Your task to perform on an android device: turn off wifi Image 0: 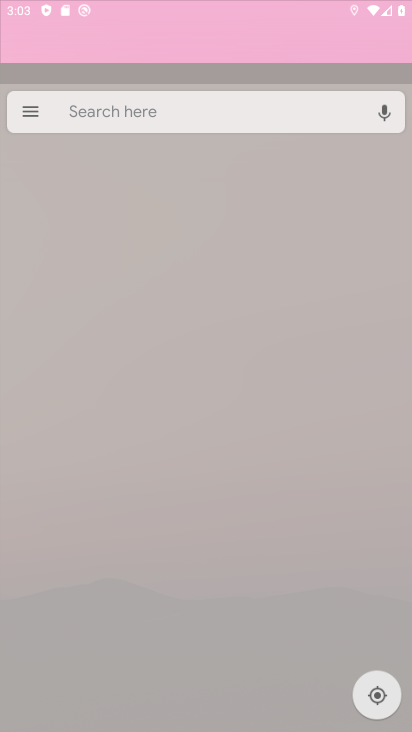
Step 0: drag from (263, 366) to (268, 297)
Your task to perform on an android device: turn off wifi Image 1: 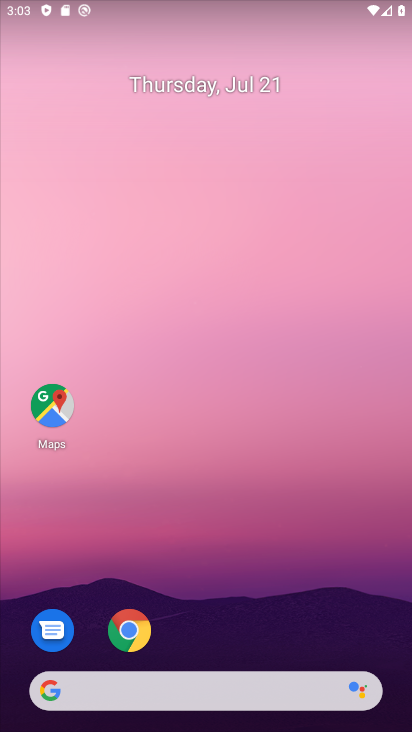
Step 1: drag from (255, 589) to (182, 136)
Your task to perform on an android device: turn off wifi Image 2: 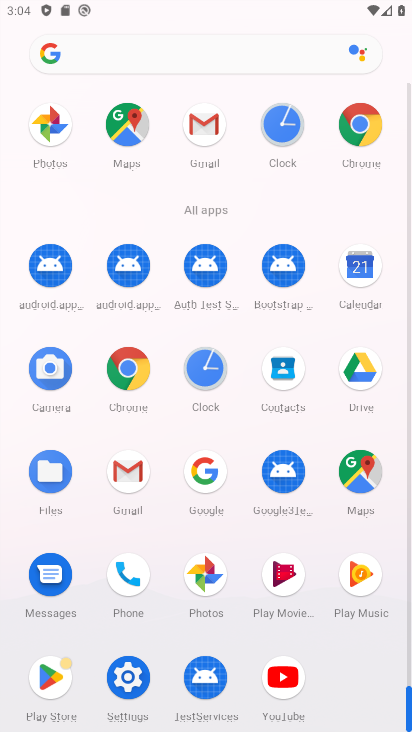
Step 2: click (128, 663)
Your task to perform on an android device: turn off wifi Image 3: 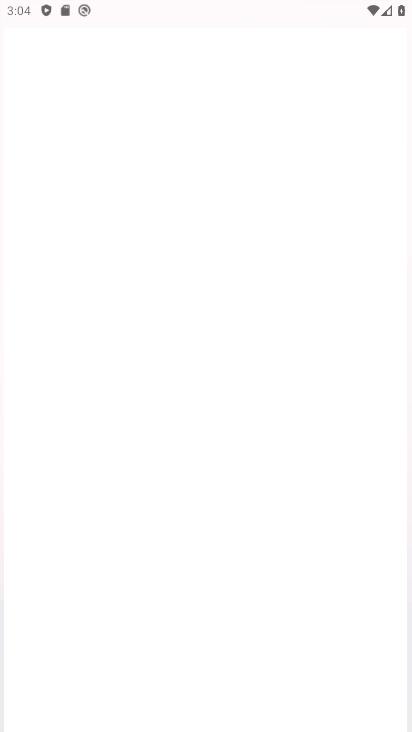
Step 3: click (128, 664)
Your task to perform on an android device: turn off wifi Image 4: 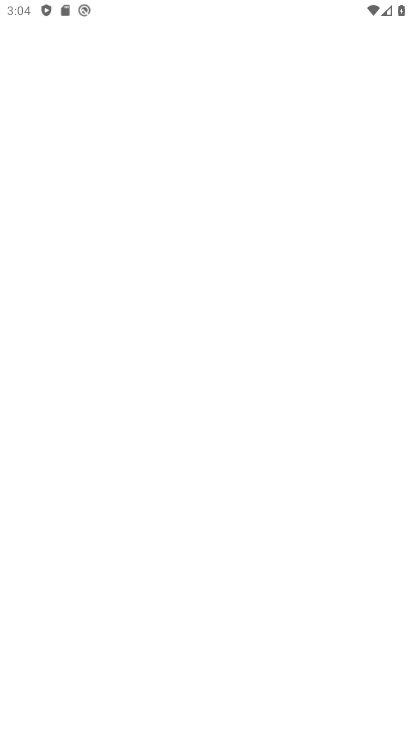
Step 4: click (126, 665)
Your task to perform on an android device: turn off wifi Image 5: 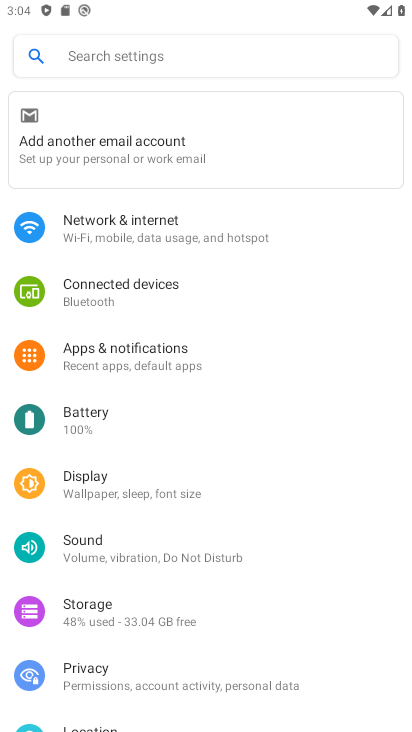
Step 5: click (147, 236)
Your task to perform on an android device: turn off wifi Image 6: 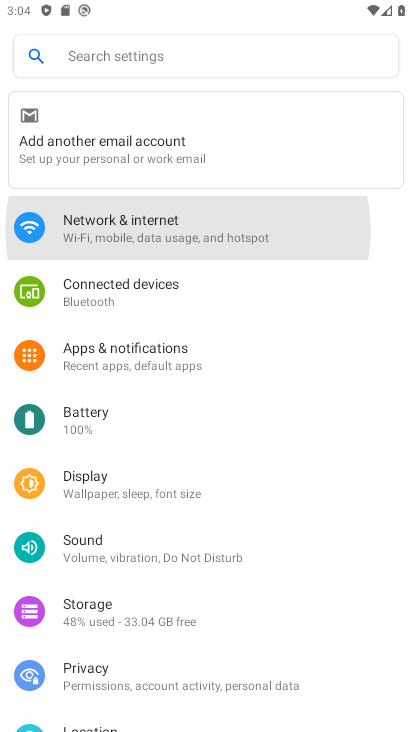
Step 6: click (151, 231)
Your task to perform on an android device: turn off wifi Image 7: 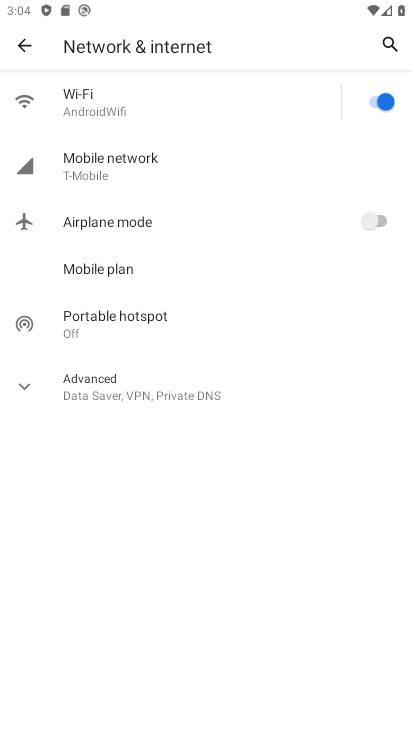
Step 7: click (395, 96)
Your task to perform on an android device: turn off wifi Image 8: 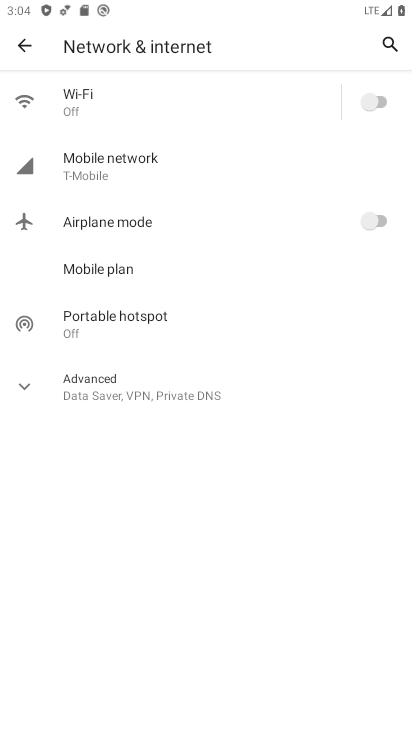
Step 8: task complete